Your task to perform on an android device: read, delete, or share a saved page in the chrome app Image 0: 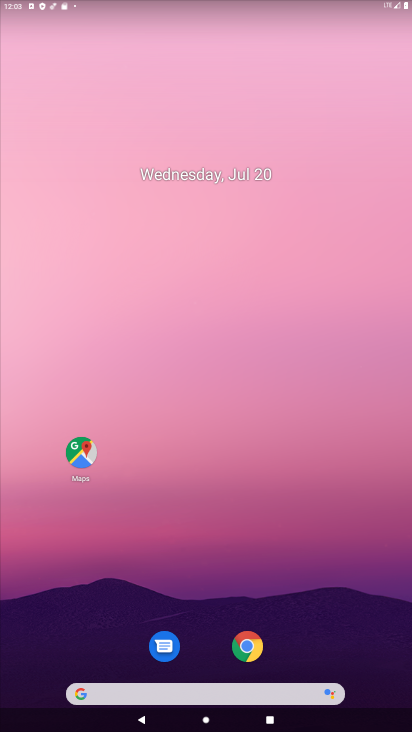
Step 0: click (252, 648)
Your task to perform on an android device: read, delete, or share a saved page in the chrome app Image 1: 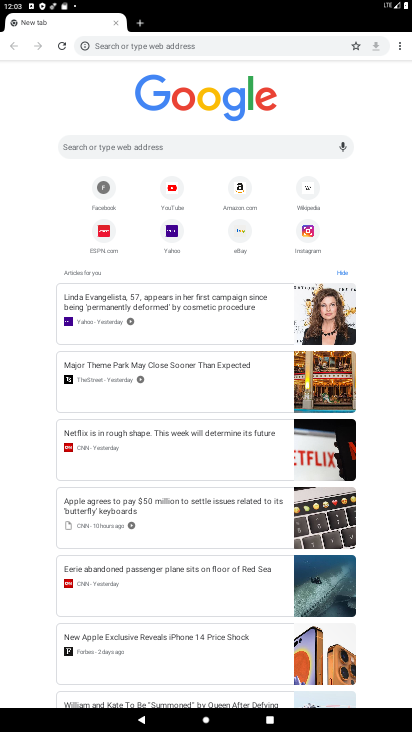
Step 1: click (404, 57)
Your task to perform on an android device: read, delete, or share a saved page in the chrome app Image 2: 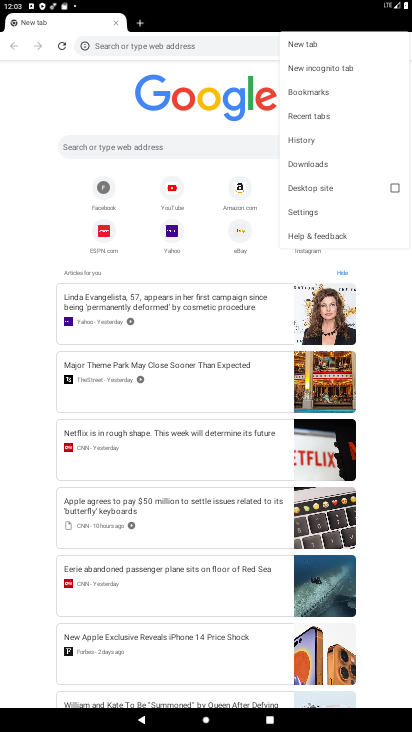
Step 2: click (308, 160)
Your task to perform on an android device: read, delete, or share a saved page in the chrome app Image 3: 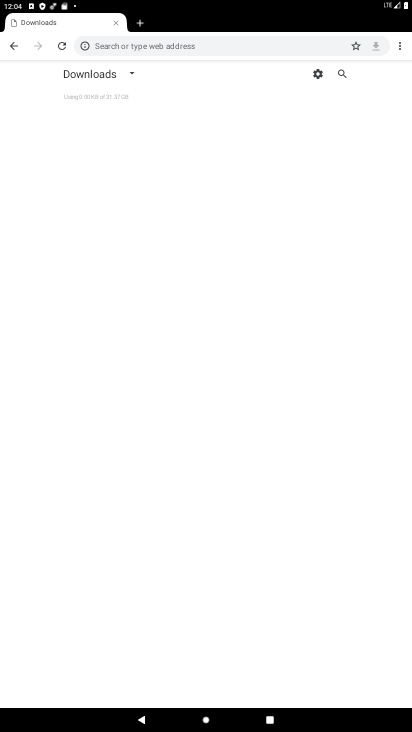
Step 3: task complete